Your task to perform on an android device: turn on javascript in the chrome app Image 0: 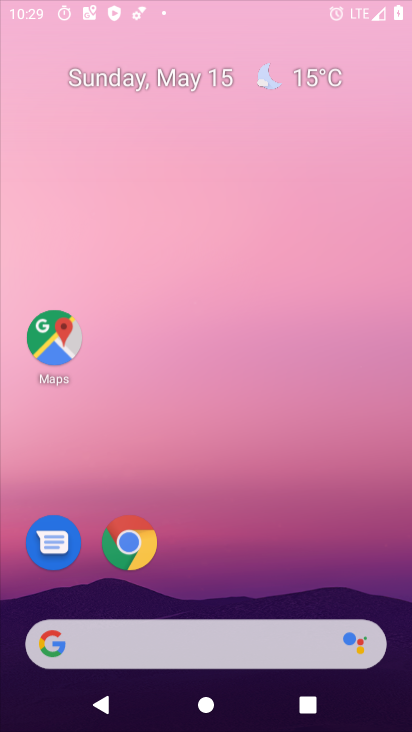
Step 0: press back button
Your task to perform on an android device: turn on javascript in the chrome app Image 1: 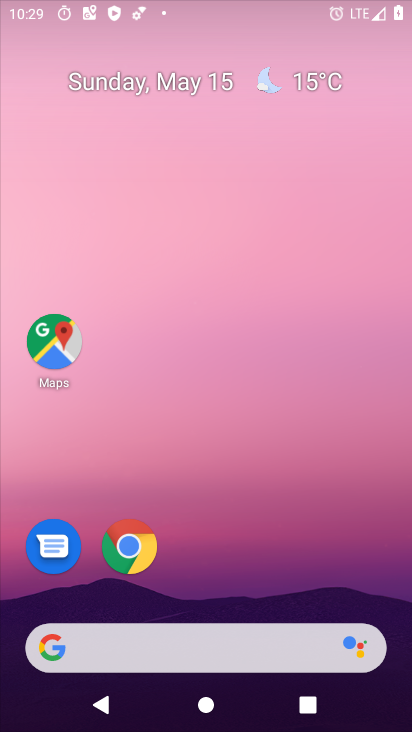
Step 1: drag from (249, 614) to (173, 143)
Your task to perform on an android device: turn on javascript in the chrome app Image 2: 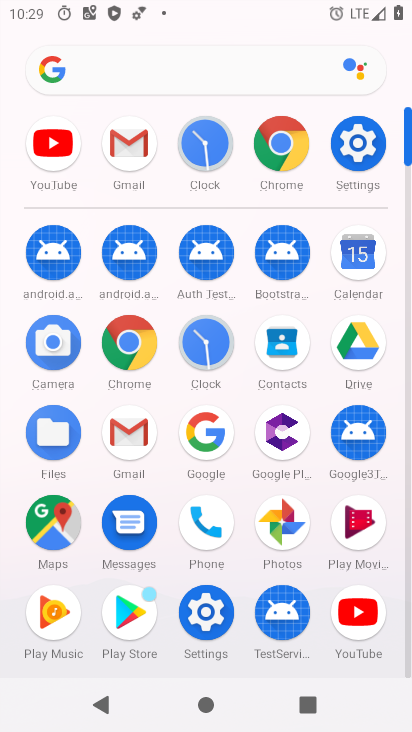
Step 2: click (273, 137)
Your task to perform on an android device: turn on javascript in the chrome app Image 3: 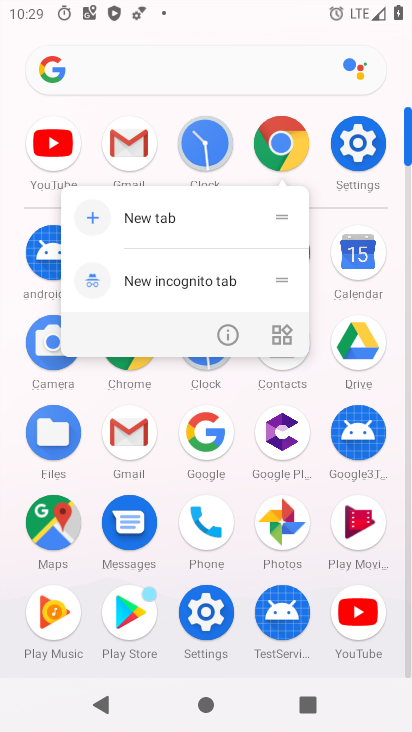
Step 3: click (274, 136)
Your task to perform on an android device: turn on javascript in the chrome app Image 4: 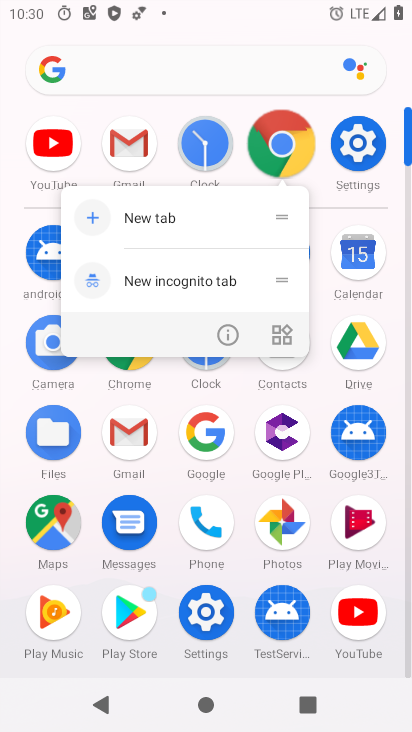
Step 4: click (274, 136)
Your task to perform on an android device: turn on javascript in the chrome app Image 5: 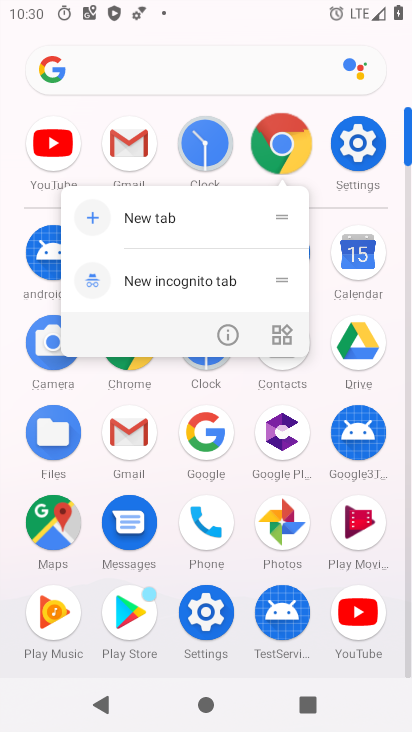
Step 5: click (274, 136)
Your task to perform on an android device: turn on javascript in the chrome app Image 6: 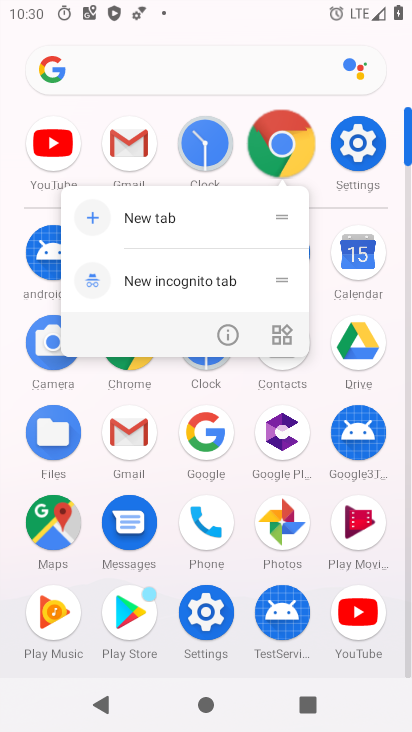
Step 6: click (274, 136)
Your task to perform on an android device: turn on javascript in the chrome app Image 7: 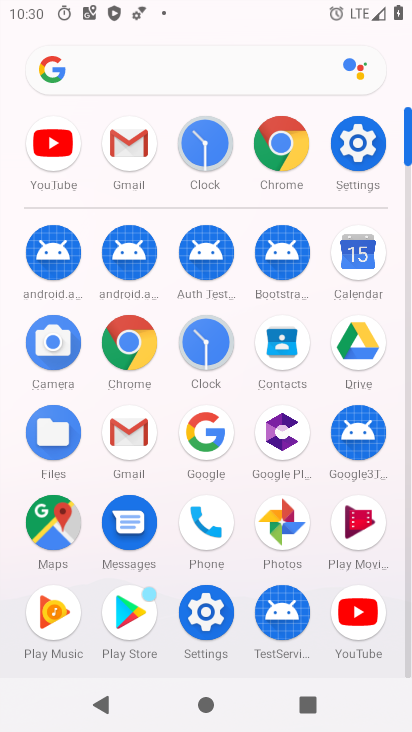
Step 7: click (274, 136)
Your task to perform on an android device: turn on javascript in the chrome app Image 8: 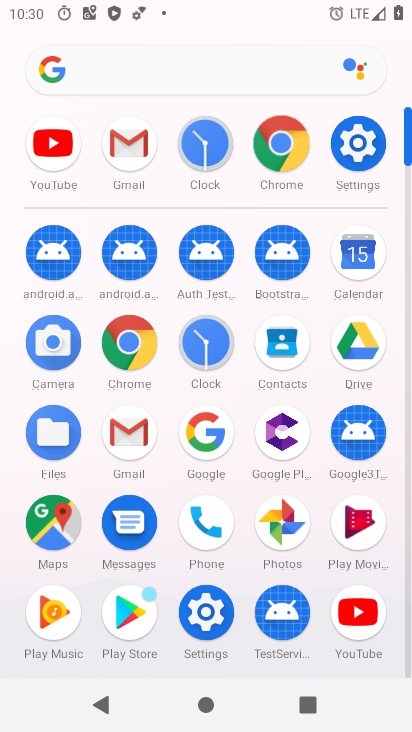
Step 8: click (274, 136)
Your task to perform on an android device: turn on javascript in the chrome app Image 9: 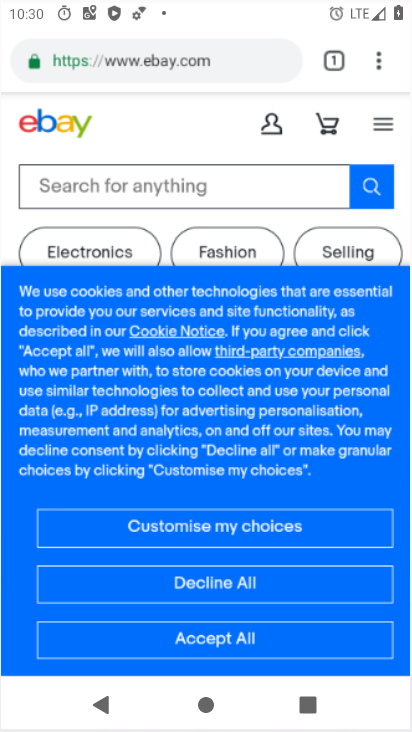
Step 9: click (274, 136)
Your task to perform on an android device: turn on javascript in the chrome app Image 10: 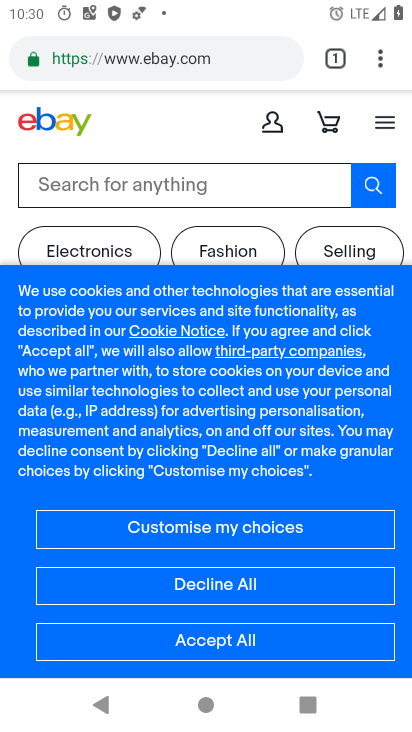
Step 10: click (380, 56)
Your task to perform on an android device: turn on javascript in the chrome app Image 11: 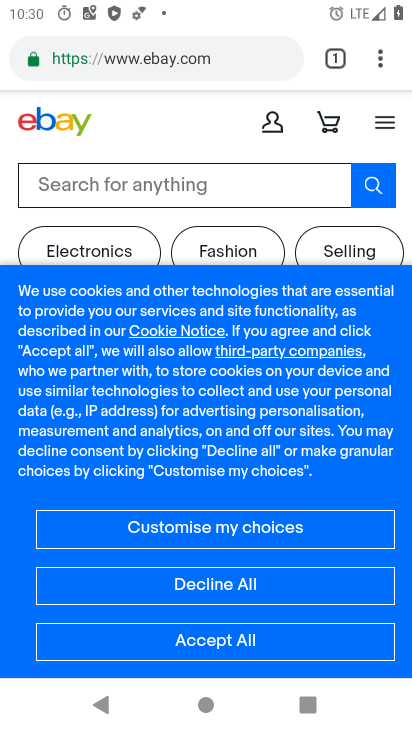
Step 11: drag from (378, 57) to (228, 556)
Your task to perform on an android device: turn on javascript in the chrome app Image 12: 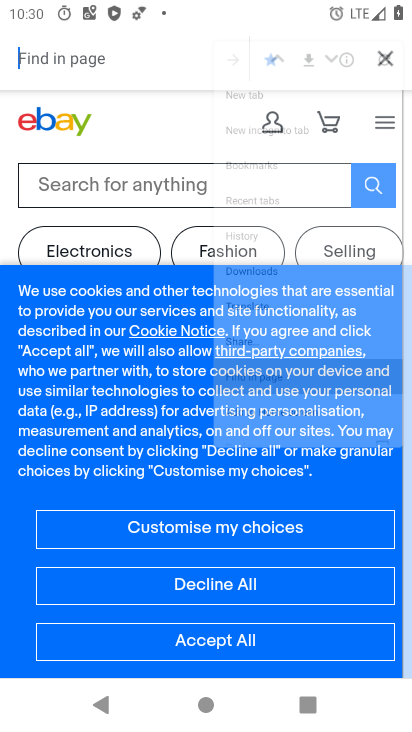
Step 12: click (228, 556)
Your task to perform on an android device: turn on javascript in the chrome app Image 13: 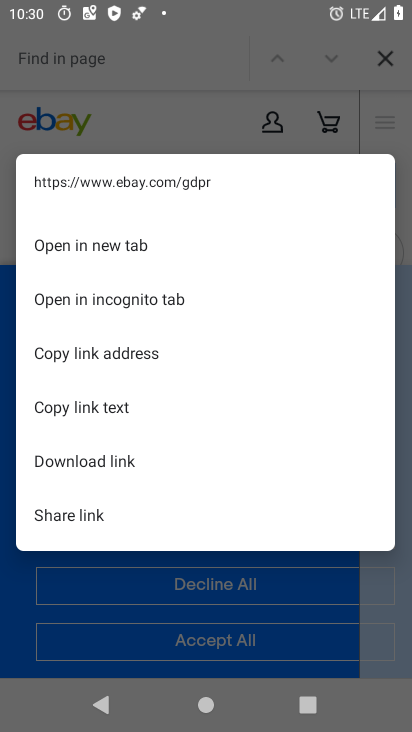
Step 13: click (96, 250)
Your task to perform on an android device: turn on javascript in the chrome app Image 14: 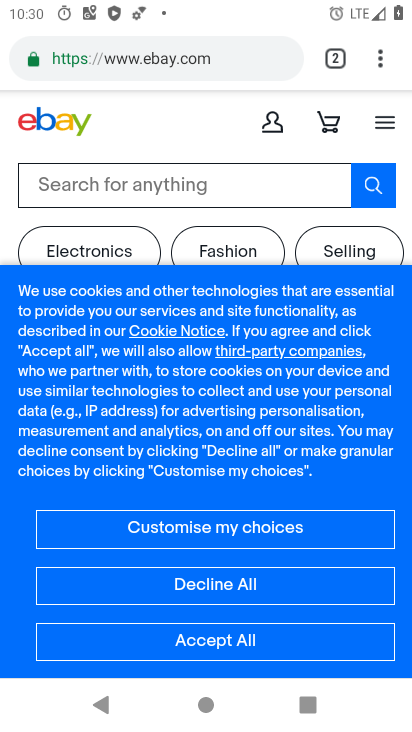
Step 14: press back button
Your task to perform on an android device: turn on javascript in the chrome app Image 15: 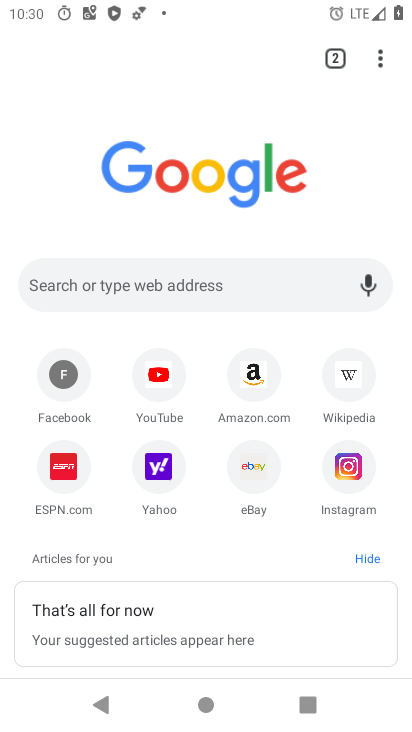
Step 15: drag from (377, 52) to (171, 493)
Your task to perform on an android device: turn on javascript in the chrome app Image 16: 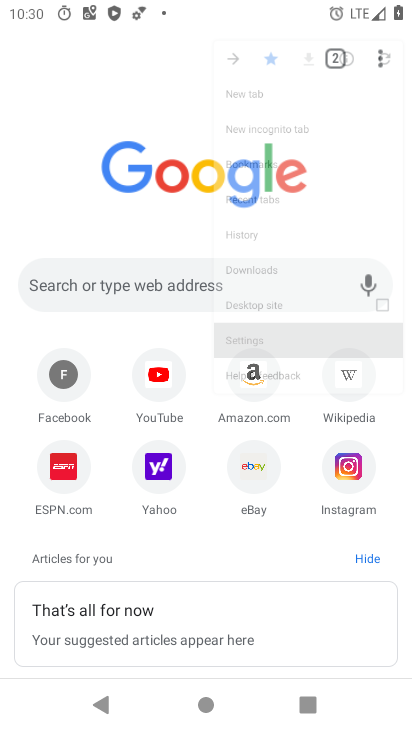
Step 16: click (171, 493)
Your task to perform on an android device: turn on javascript in the chrome app Image 17: 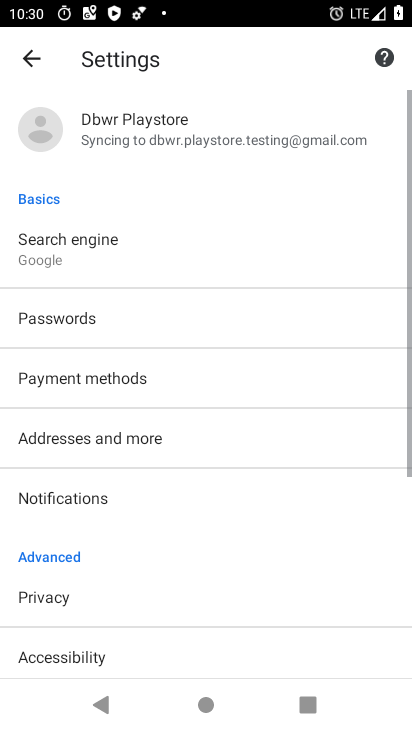
Step 17: drag from (128, 527) to (99, 139)
Your task to perform on an android device: turn on javascript in the chrome app Image 18: 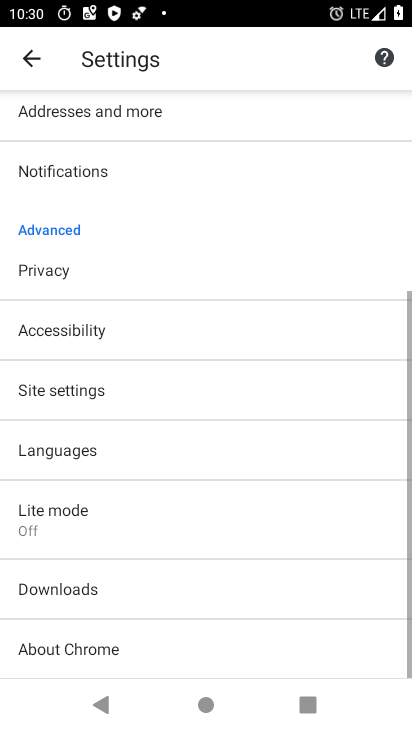
Step 18: drag from (138, 536) to (120, 46)
Your task to perform on an android device: turn on javascript in the chrome app Image 19: 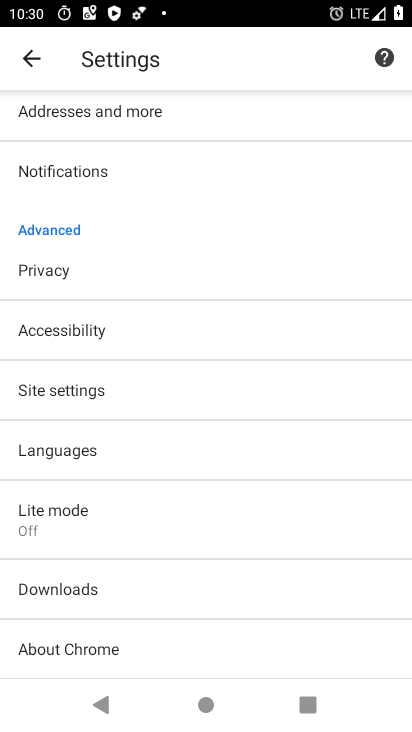
Step 19: click (51, 390)
Your task to perform on an android device: turn on javascript in the chrome app Image 20: 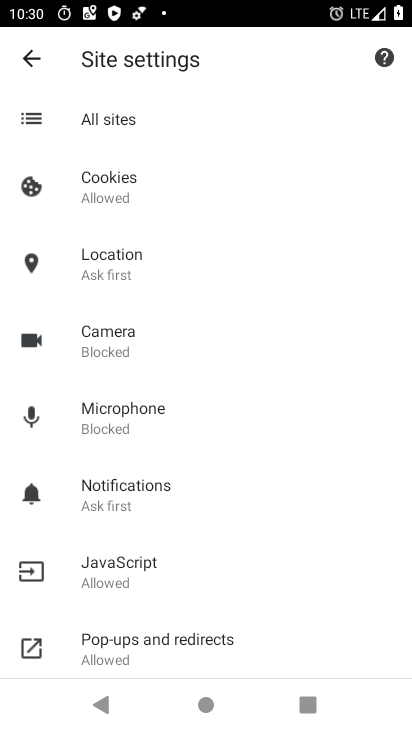
Step 20: click (99, 571)
Your task to perform on an android device: turn on javascript in the chrome app Image 21: 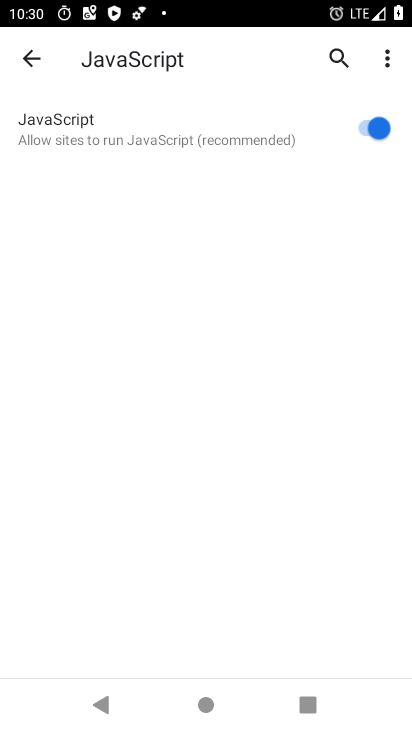
Step 21: task complete